Your task to perform on an android device: Do I have any events tomorrow? Image 0: 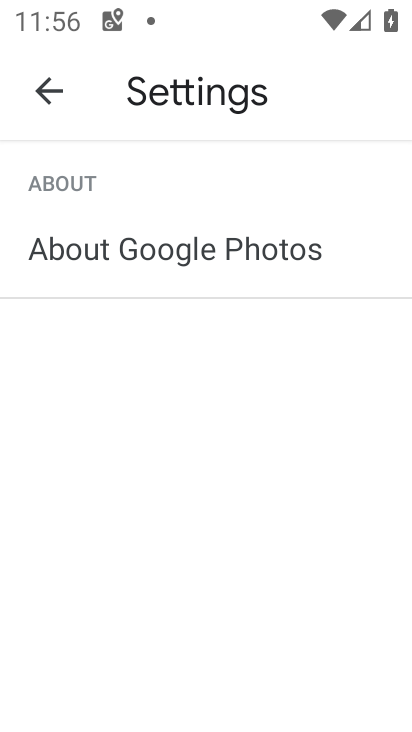
Step 0: press home button
Your task to perform on an android device: Do I have any events tomorrow? Image 1: 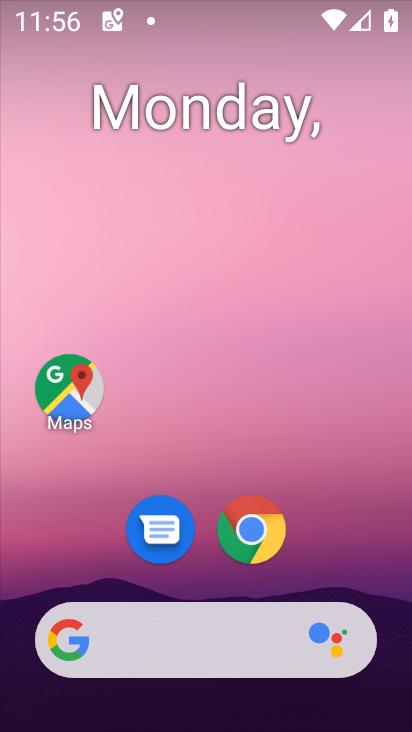
Step 1: drag from (233, 692) to (357, 177)
Your task to perform on an android device: Do I have any events tomorrow? Image 2: 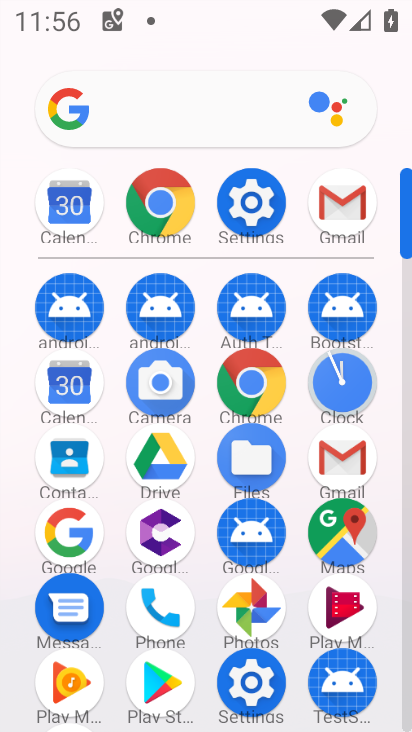
Step 2: click (75, 378)
Your task to perform on an android device: Do I have any events tomorrow? Image 3: 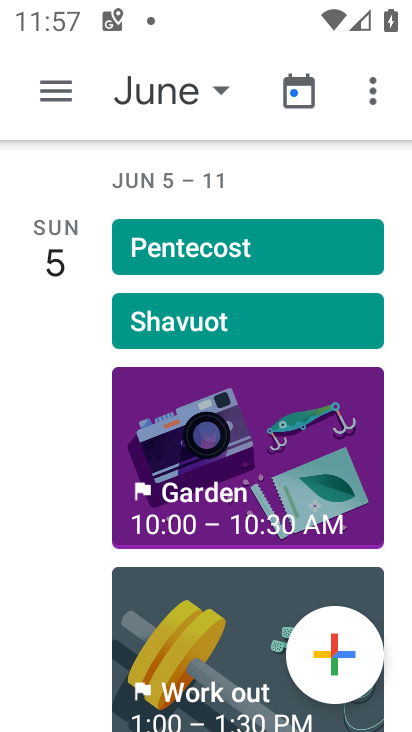
Step 3: click (43, 77)
Your task to perform on an android device: Do I have any events tomorrow? Image 4: 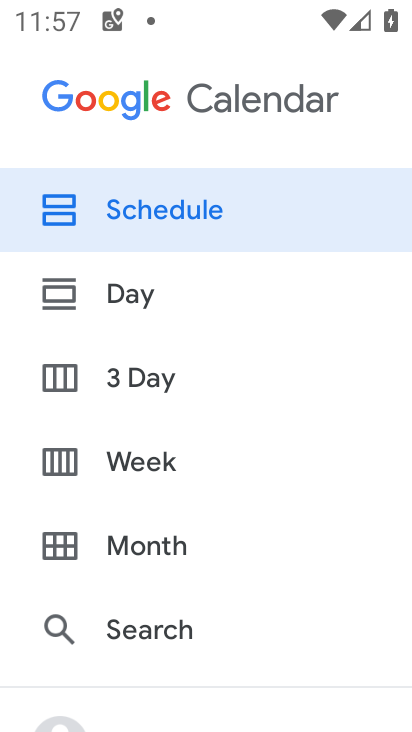
Step 4: click (144, 549)
Your task to perform on an android device: Do I have any events tomorrow? Image 5: 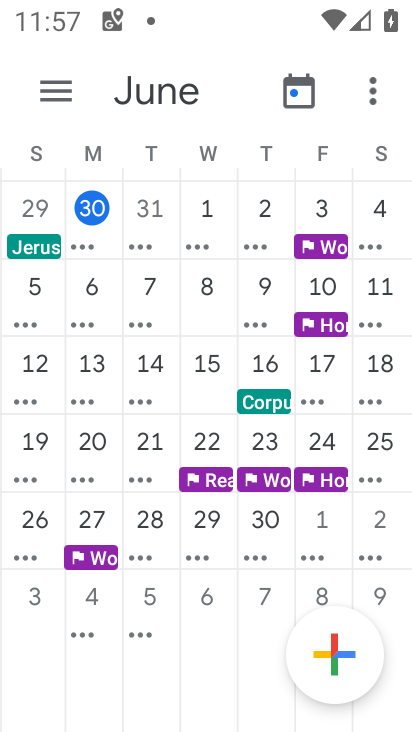
Step 5: drag from (53, 421) to (274, 442)
Your task to perform on an android device: Do I have any events tomorrow? Image 6: 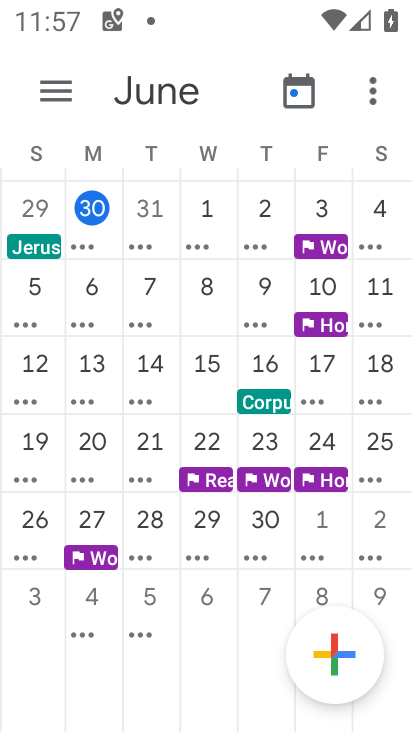
Step 6: click (156, 229)
Your task to perform on an android device: Do I have any events tomorrow? Image 7: 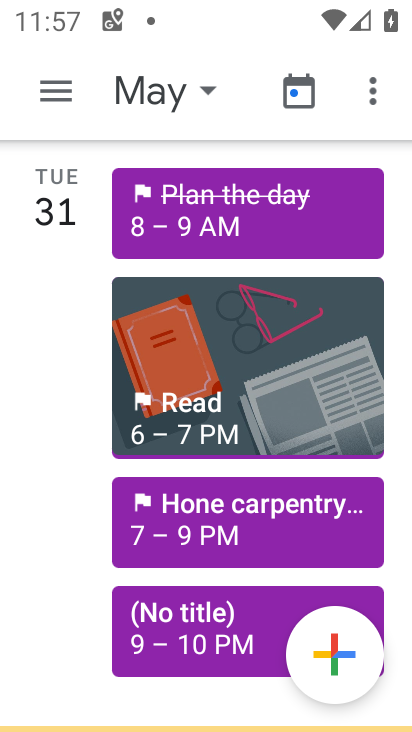
Step 7: task complete